Your task to perform on an android device: turn pop-ups off in chrome Image 0: 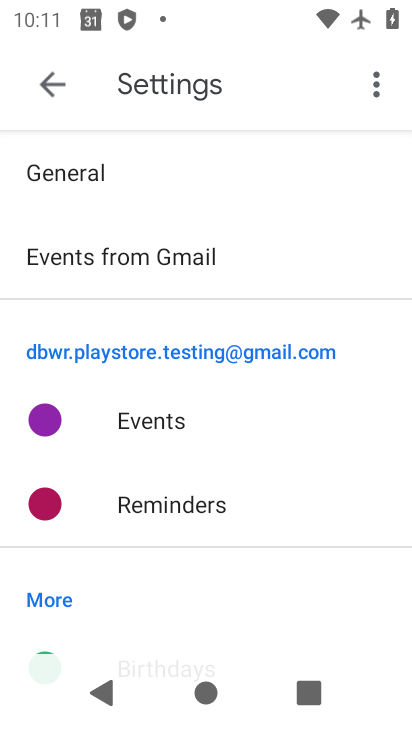
Step 0: press home button
Your task to perform on an android device: turn pop-ups off in chrome Image 1: 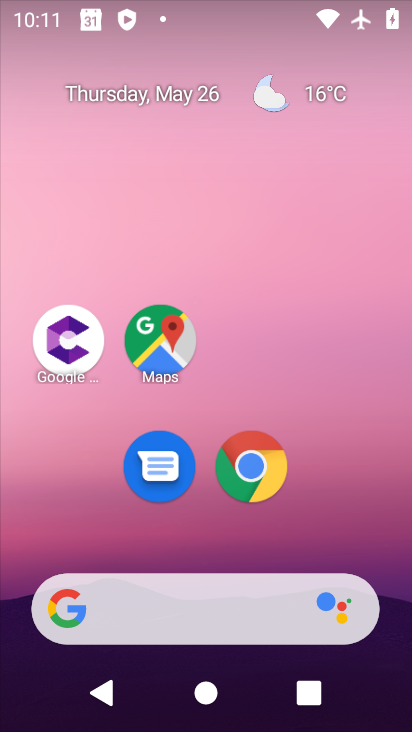
Step 1: click (253, 464)
Your task to perform on an android device: turn pop-ups off in chrome Image 2: 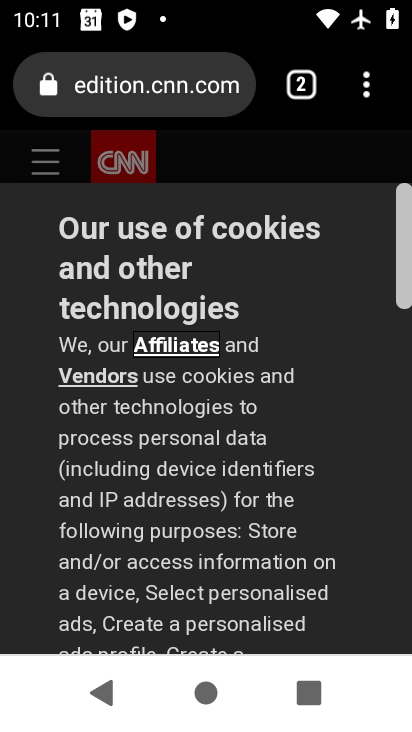
Step 2: click (350, 145)
Your task to perform on an android device: turn pop-ups off in chrome Image 3: 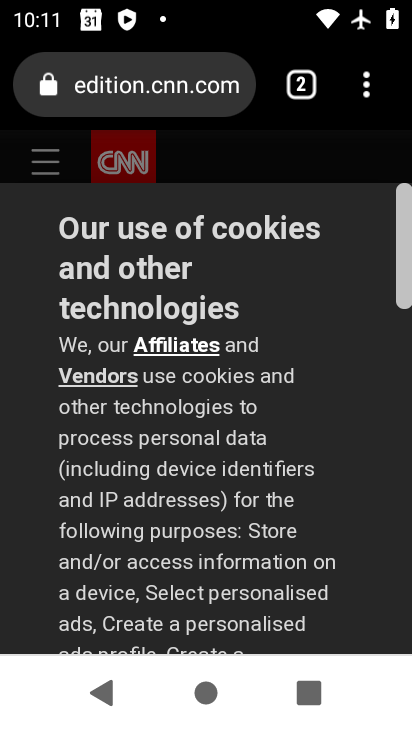
Step 3: click (363, 90)
Your task to perform on an android device: turn pop-ups off in chrome Image 4: 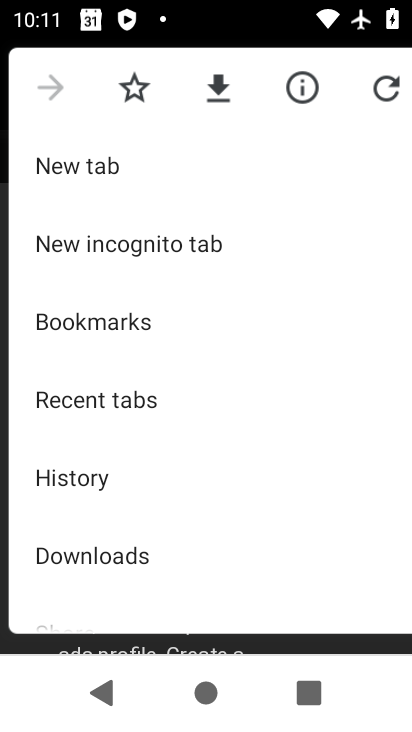
Step 4: drag from (279, 484) to (197, 219)
Your task to perform on an android device: turn pop-ups off in chrome Image 5: 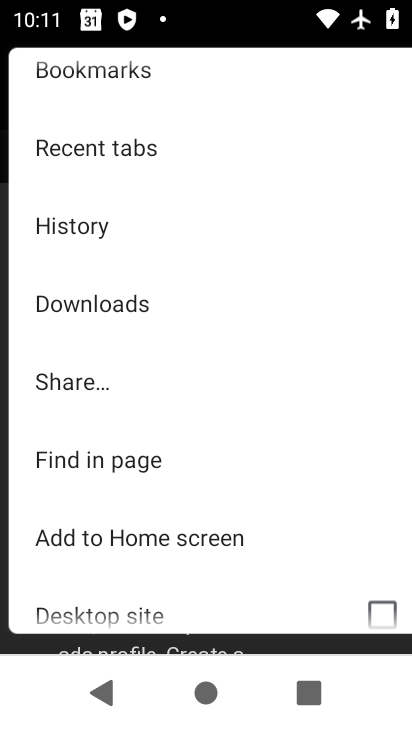
Step 5: drag from (213, 456) to (182, 244)
Your task to perform on an android device: turn pop-ups off in chrome Image 6: 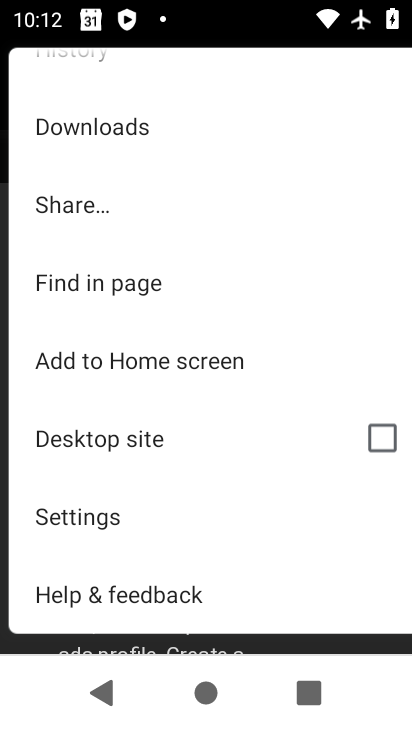
Step 6: click (76, 519)
Your task to perform on an android device: turn pop-ups off in chrome Image 7: 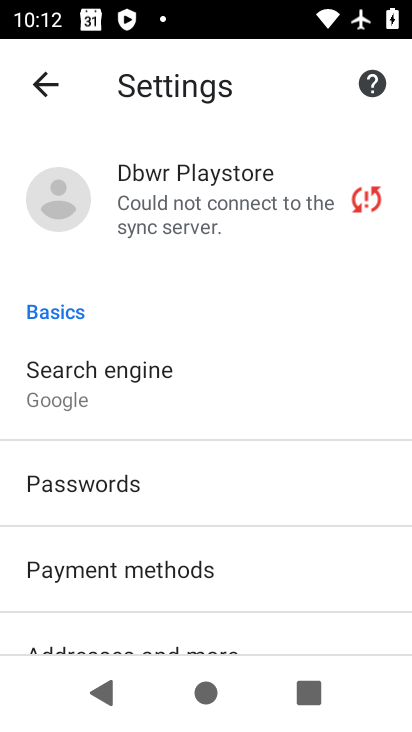
Step 7: drag from (259, 502) to (179, 207)
Your task to perform on an android device: turn pop-ups off in chrome Image 8: 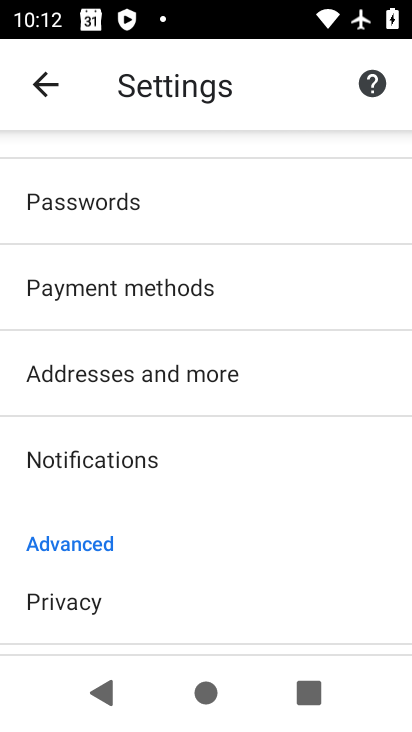
Step 8: drag from (208, 485) to (144, 200)
Your task to perform on an android device: turn pop-ups off in chrome Image 9: 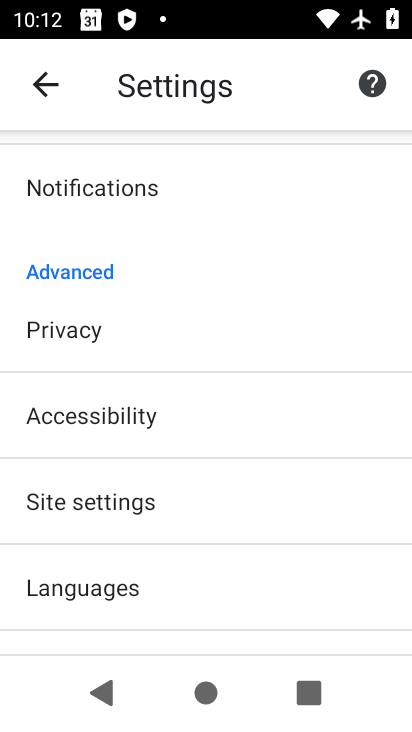
Step 9: click (124, 494)
Your task to perform on an android device: turn pop-ups off in chrome Image 10: 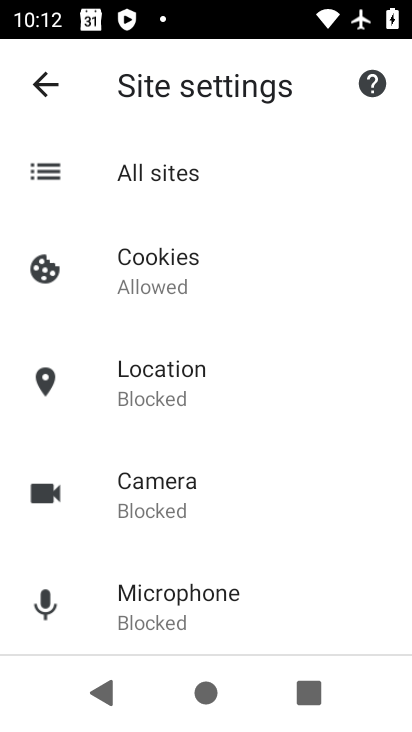
Step 10: drag from (267, 530) to (204, 184)
Your task to perform on an android device: turn pop-ups off in chrome Image 11: 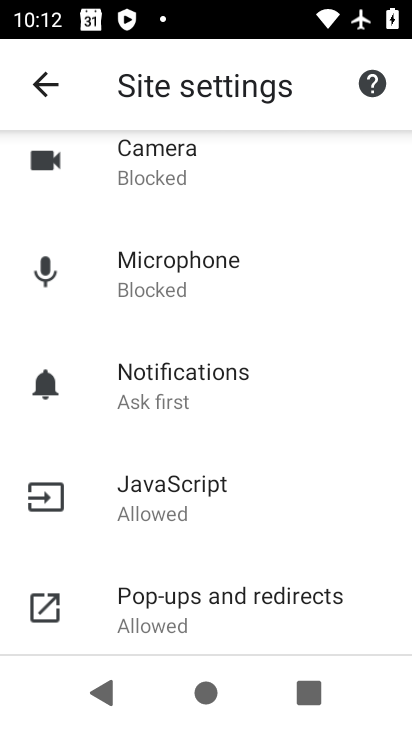
Step 11: click (210, 594)
Your task to perform on an android device: turn pop-ups off in chrome Image 12: 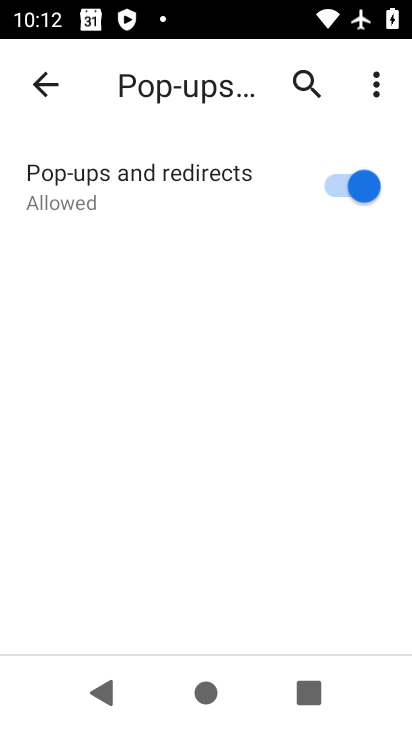
Step 12: click (348, 199)
Your task to perform on an android device: turn pop-ups off in chrome Image 13: 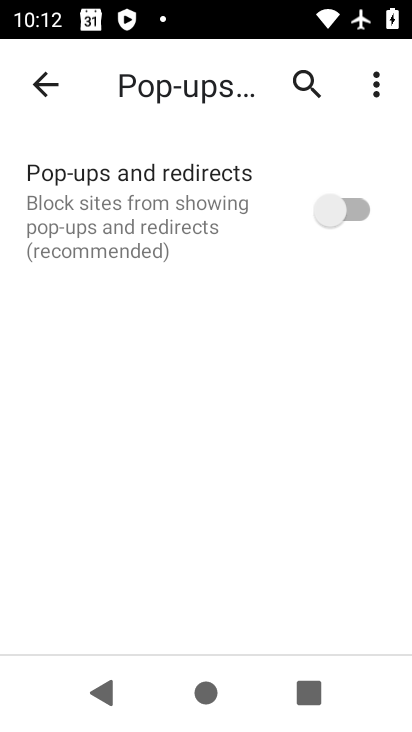
Step 13: task complete